Your task to perform on an android device: toggle airplane mode Image 0: 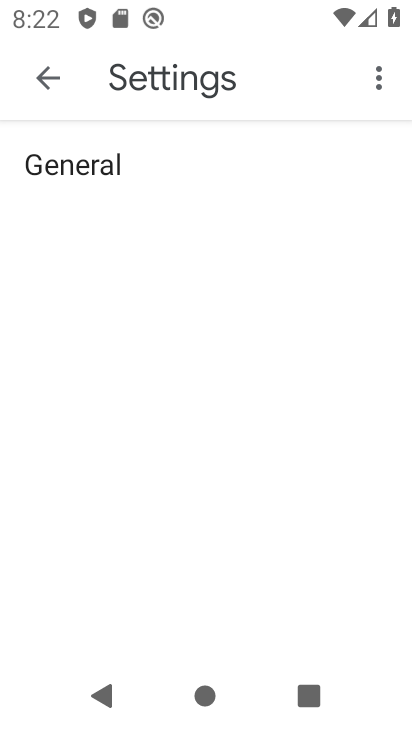
Step 0: press home button
Your task to perform on an android device: toggle airplane mode Image 1: 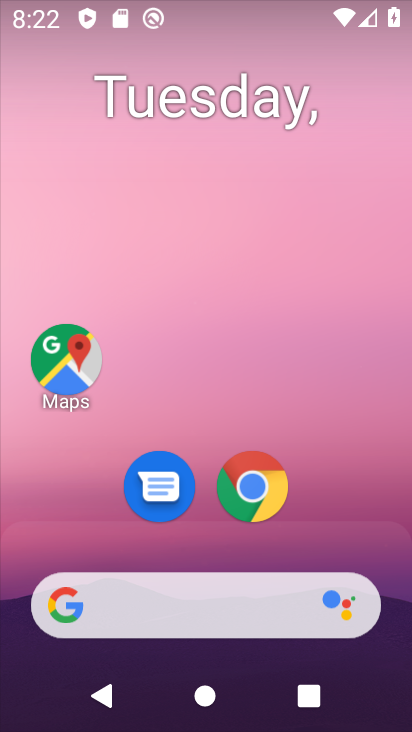
Step 1: drag from (226, 729) to (194, 203)
Your task to perform on an android device: toggle airplane mode Image 2: 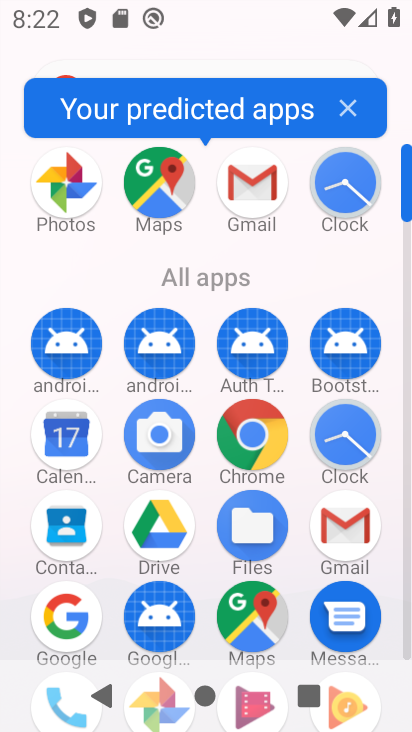
Step 2: drag from (192, 657) to (196, 272)
Your task to perform on an android device: toggle airplane mode Image 3: 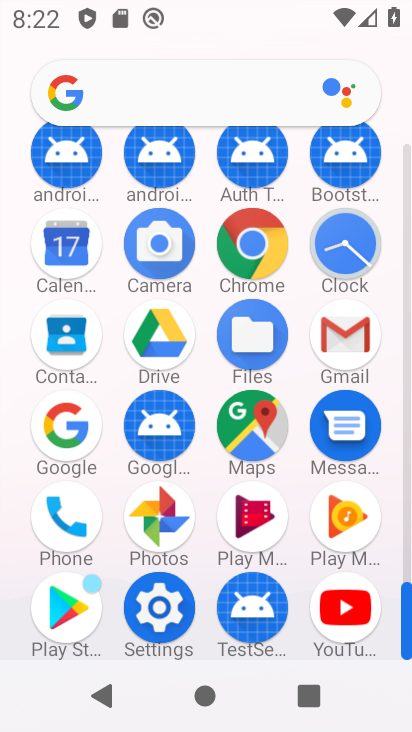
Step 3: click (160, 609)
Your task to perform on an android device: toggle airplane mode Image 4: 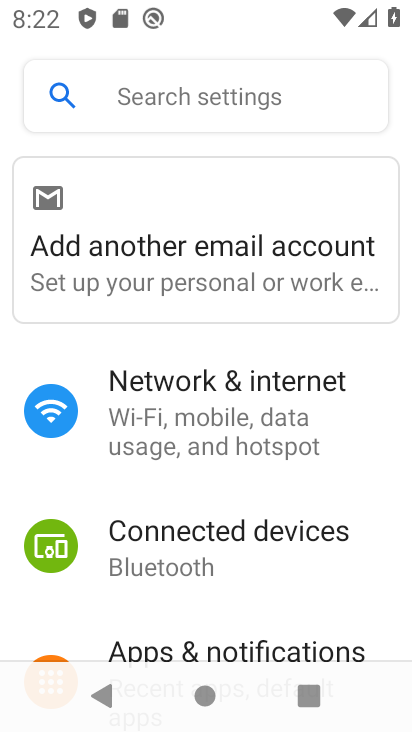
Step 4: click (204, 421)
Your task to perform on an android device: toggle airplane mode Image 5: 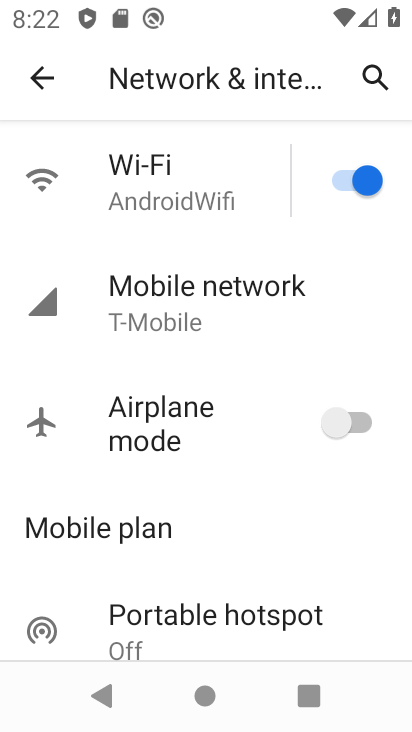
Step 5: click (355, 423)
Your task to perform on an android device: toggle airplane mode Image 6: 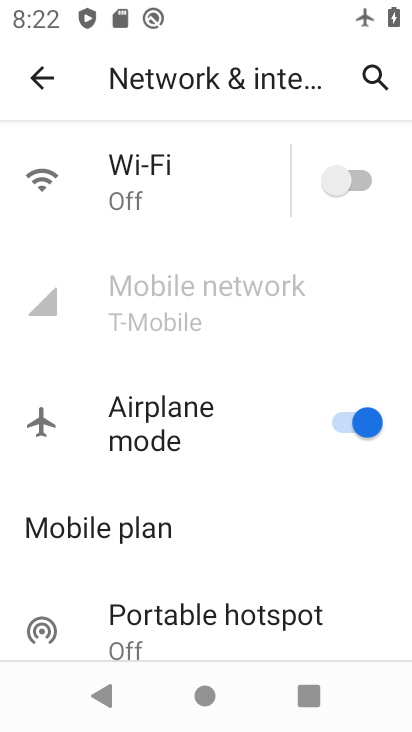
Step 6: task complete